Your task to perform on an android device: Go to sound settings Image 0: 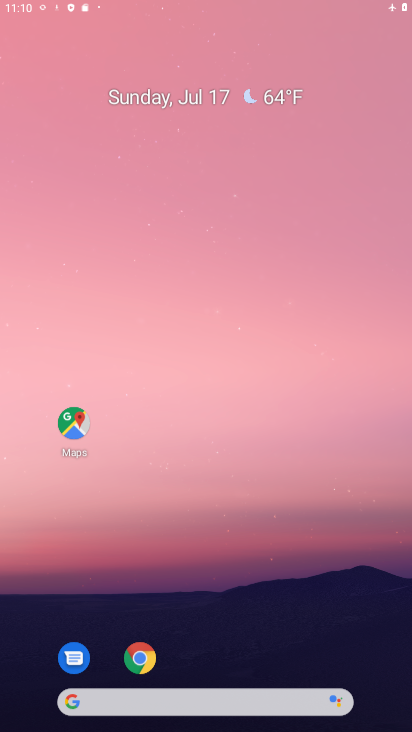
Step 0: press home button
Your task to perform on an android device: Go to sound settings Image 1: 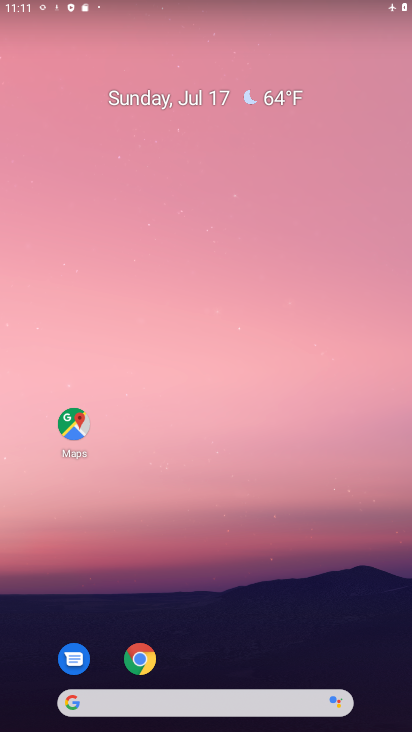
Step 1: drag from (348, 622) to (365, 132)
Your task to perform on an android device: Go to sound settings Image 2: 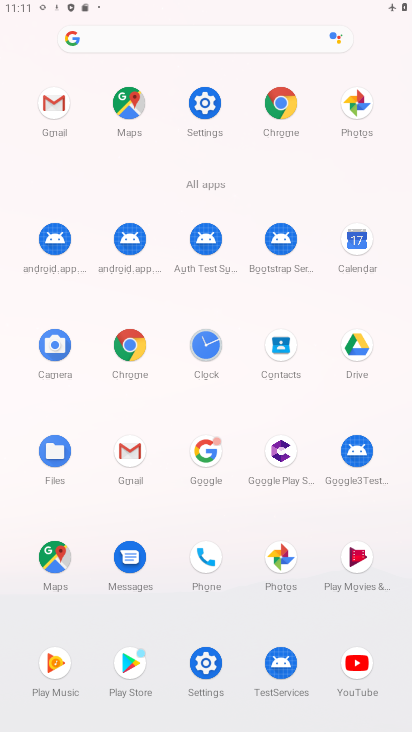
Step 2: click (204, 108)
Your task to perform on an android device: Go to sound settings Image 3: 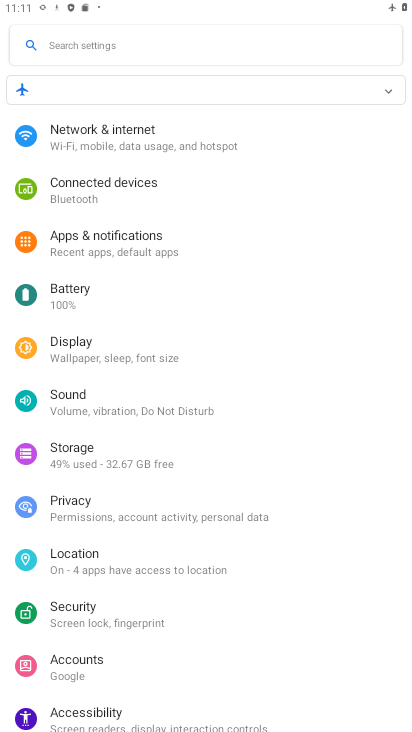
Step 3: drag from (361, 515) to (357, 404)
Your task to perform on an android device: Go to sound settings Image 4: 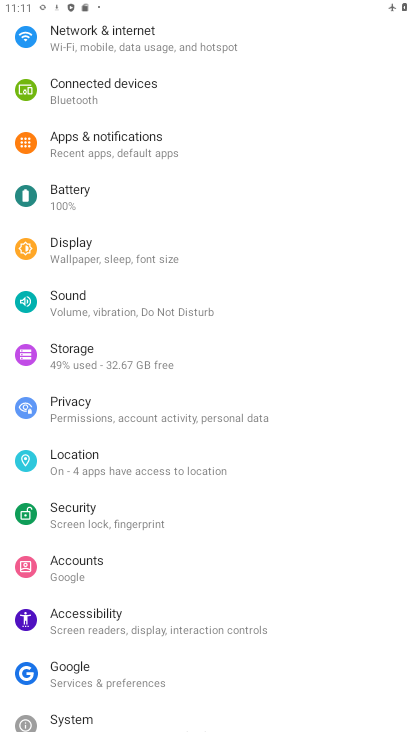
Step 4: drag from (329, 497) to (326, 384)
Your task to perform on an android device: Go to sound settings Image 5: 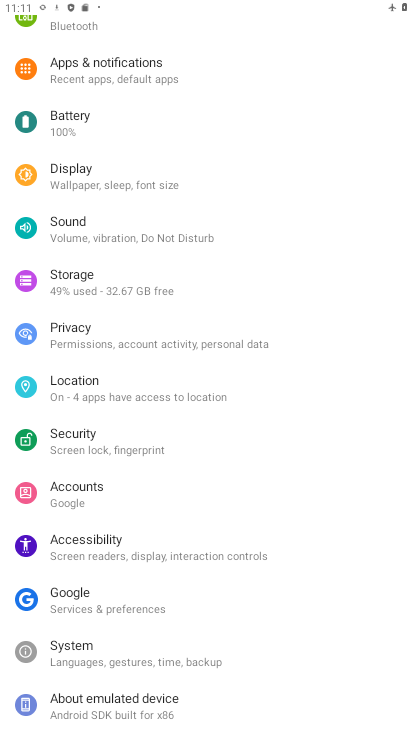
Step 5: drag from (324, 500) to (329, 366)
Your task to perform on an android device: Go to sound settings Image 6: 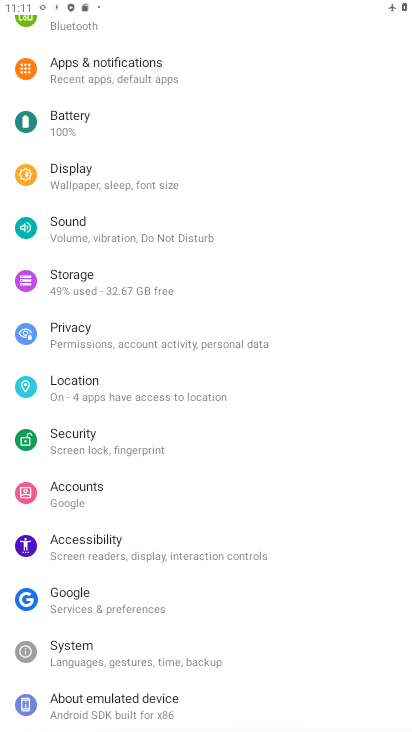
Step 6: drag from (338, 256) to (340, 350)
Your task to perform on an android device: Go to sound settings Image 7: 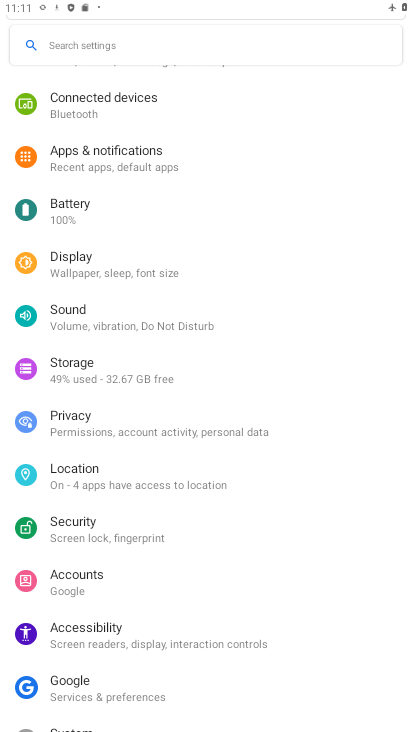
Step 7: drag from (335, 248) to (331, 349)
Your task to perform on an android device: Go to sound settings Image 8: 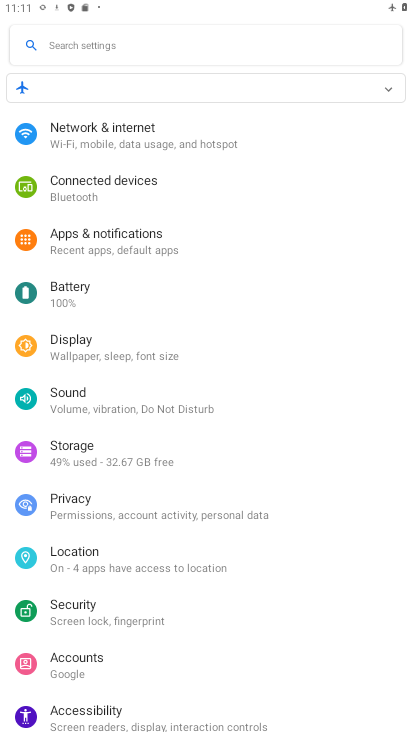
Step 8: drag from (332, 244) to (324, 353)
Your task to perform on an android device: Go to sound settings Image 9: 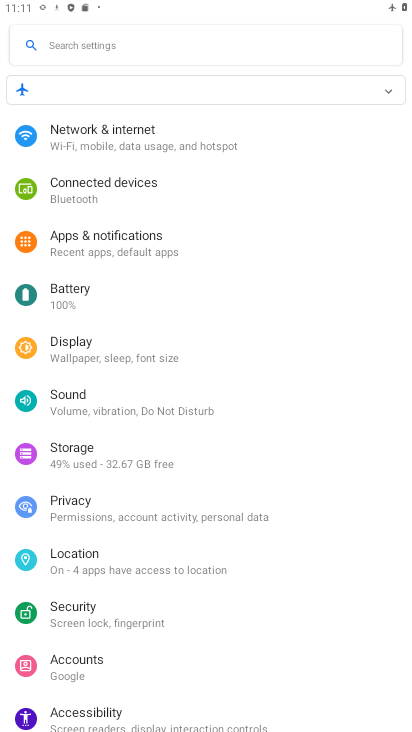
Step 9: drag from (324, 269) to (323, 408)
Your task to perform on an android device: Go to sound settings Image 10: 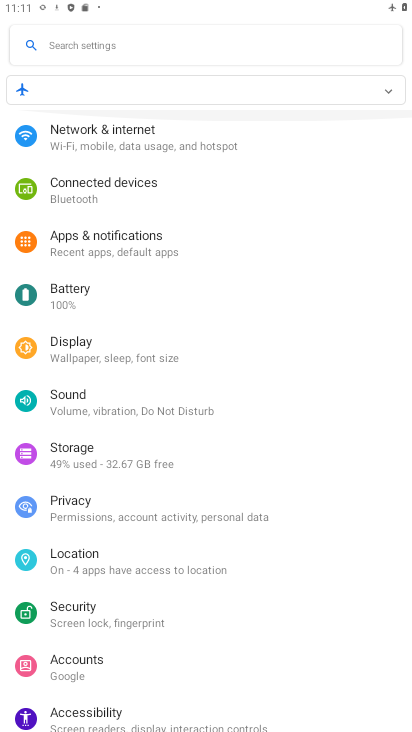
Step 10: drag from (329, 481) to (338, 379)
Your task to perform on an android device: Go to sound settings Image 11: 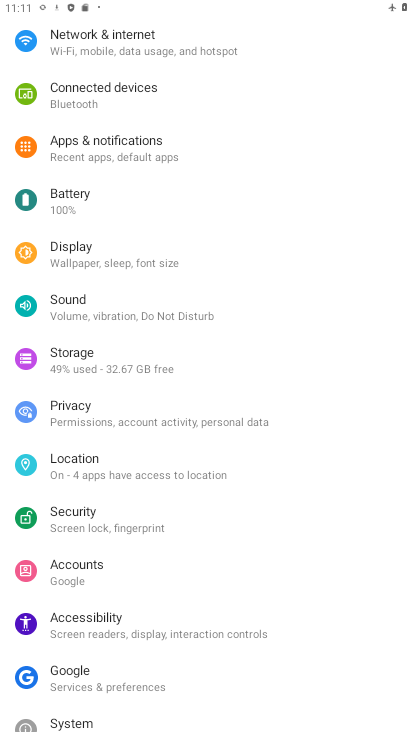
Step 11: drag from (334, 475) to (343, 372)
Your task to perform on an android device: Go to sound settings Image 12: 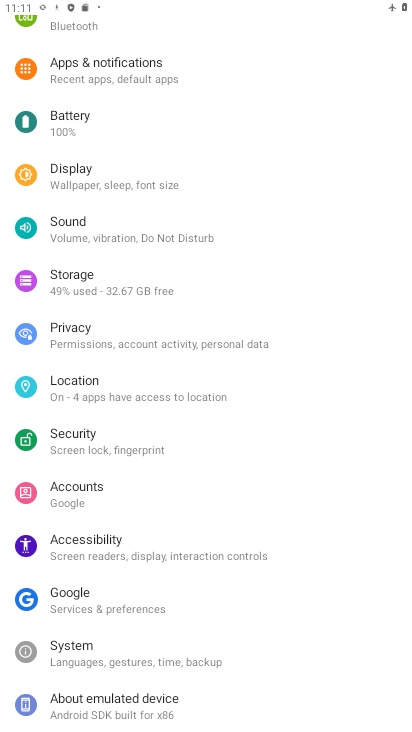
Step 12: click (228, 233)
Your task to perform on an android device: Go to sound settings Image 13: 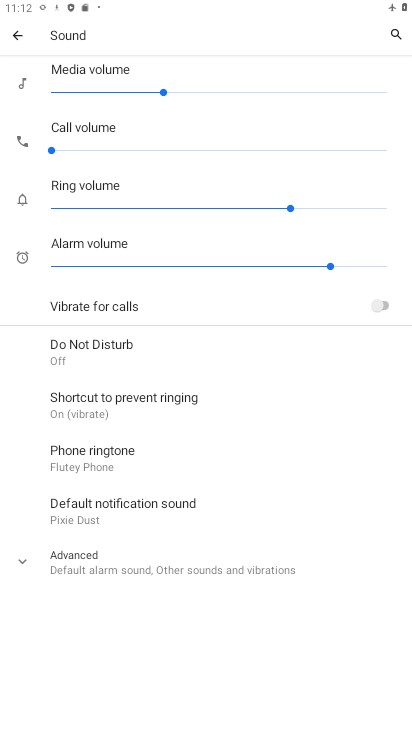
Step 13: task complete